Your task to perform on an android device: Open Amazon Image 0: 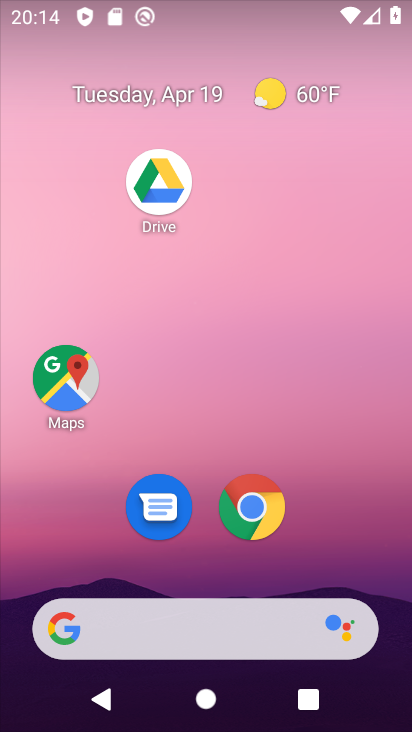
Step 0: click (271, 500)
Your task to perform on an android device: Open Amazon Image 1: 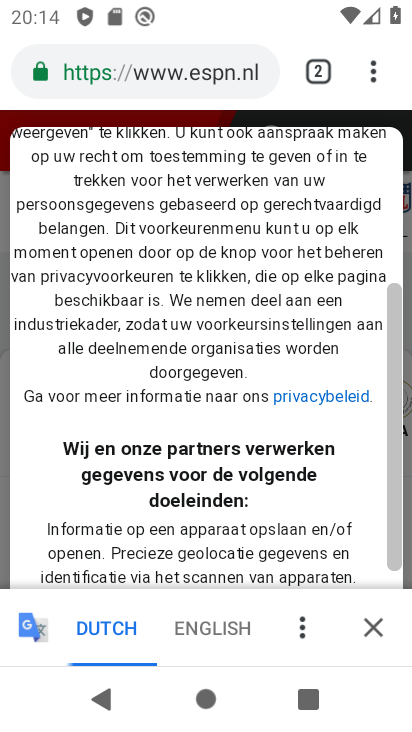
Step 1: drag from (369, 66) to (296, 133)
Your task to perform on an android device: Open Amazon Image 2: 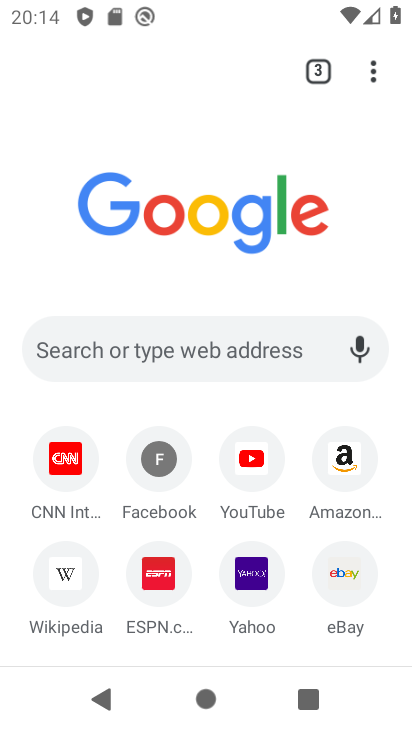
Step 2: click (346, 444)
Your task to perform on an android device: Open Amazon Image 3: 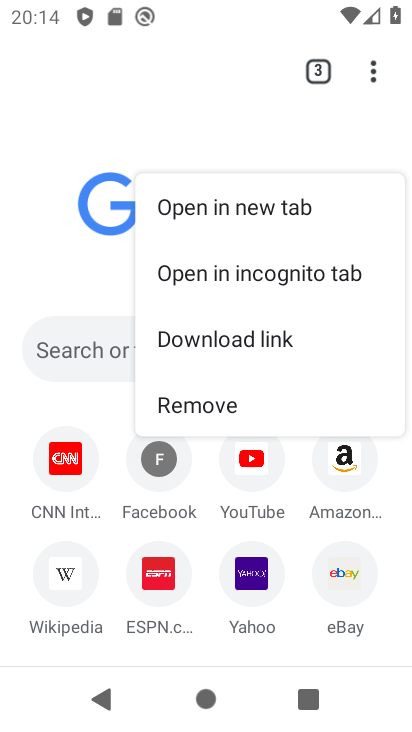
Step 3: click (346, 443)
Your task to perform on an android device: Open Amazon Image 4: 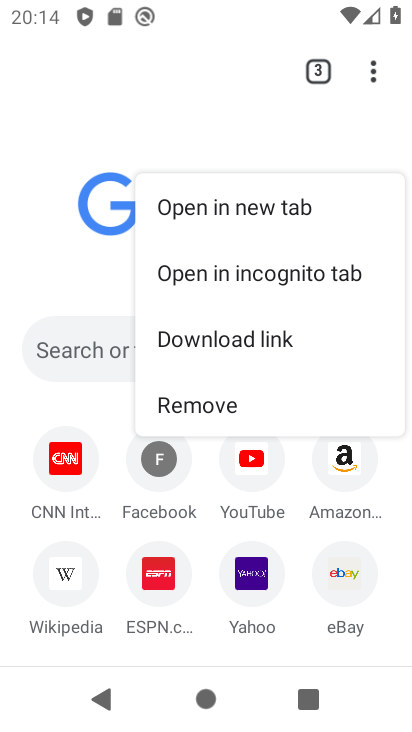
Step 4: click (348, 455)
Your task to perform on an android device: Open Amazon Image 5: 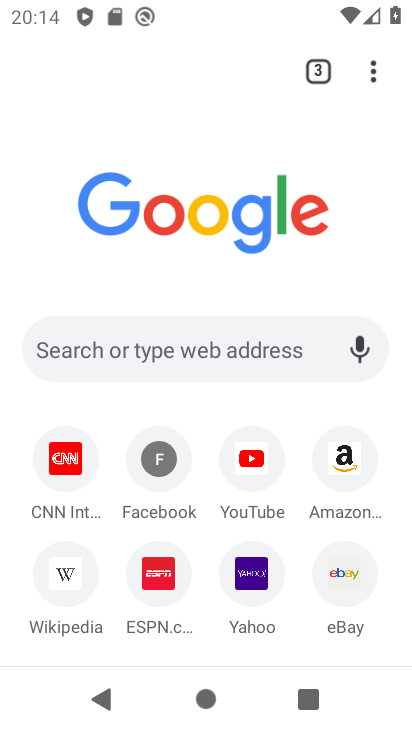
Step 5: click (348, 455)
Your task to perform on an android device: Open Amazon Image 6: 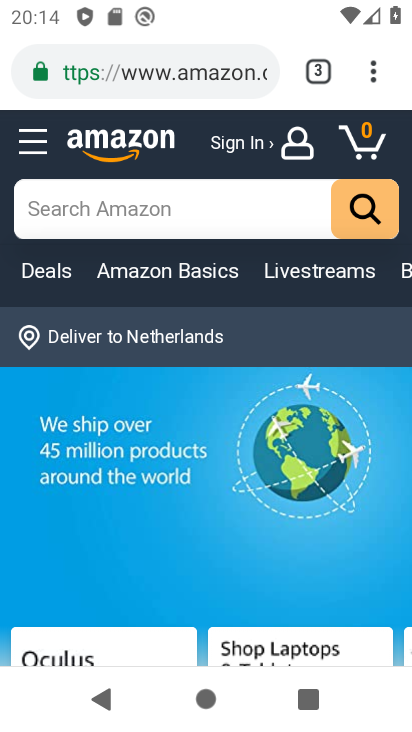
Step 6: task complete